Your task to perform on an android device: create a new album in the google photos Image 0: 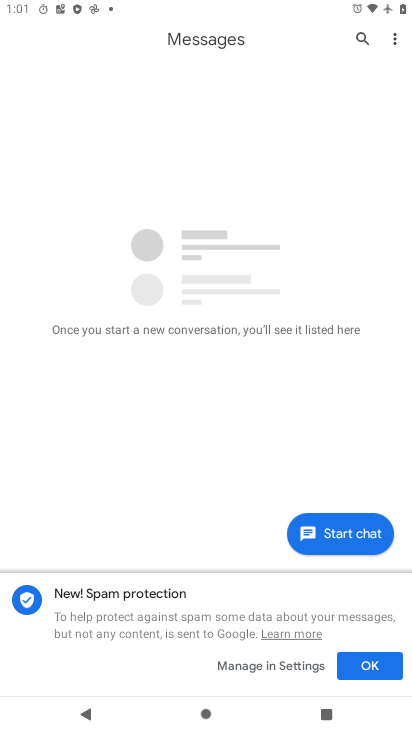
Step 0: press home button
Your task to perform on an android device: create a new album in the google photos Image 1: 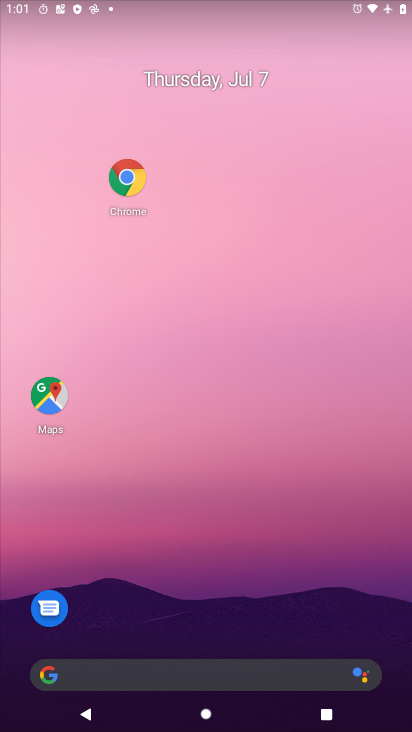
Step 1: drag from (121, 670) to (135, 138)
Your task to perform on an android device: create a new album in the google photos Image 2: 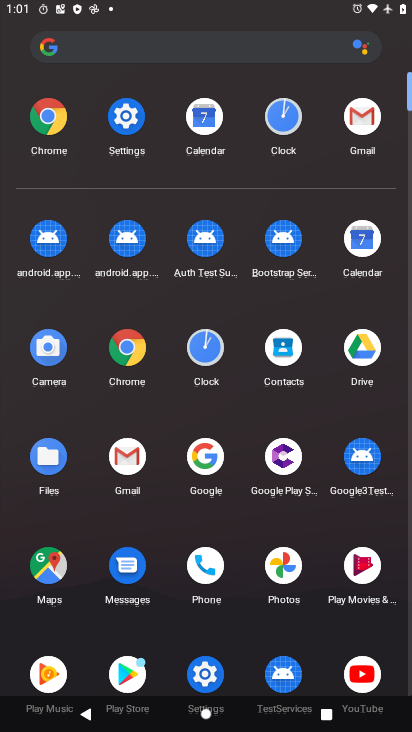
Step 2: click (282, 569)
Your task to perform on an android device: create a new album in the google photos Image 3: 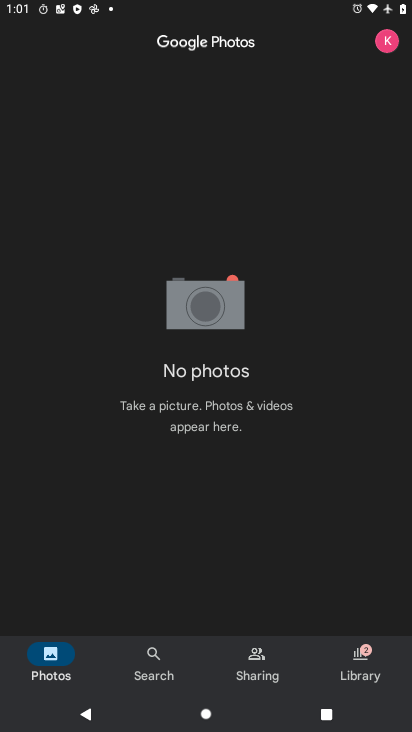
Step 3: click (250, 664)
Your task to perform on an android device: create a new album in the google photos Image 4: 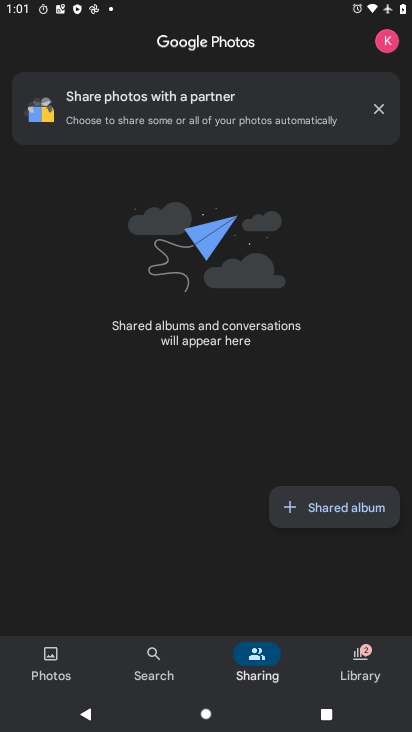
Step 4: click (361, 669)
Your task to perform on an android device: create a new album in the google photos Image 5: 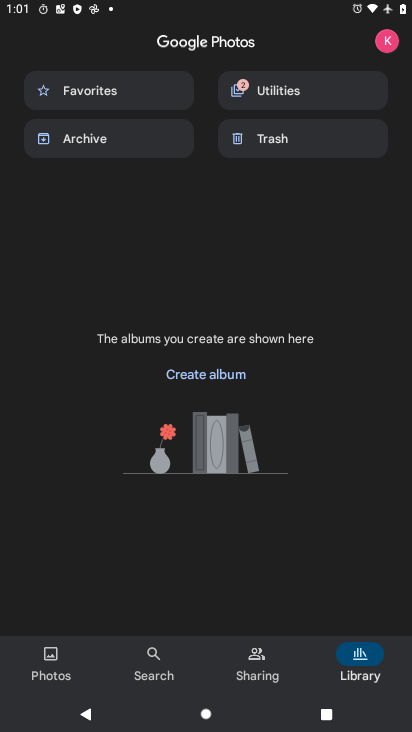
Step 5: click (222, 376)
Your task to perform on an android device: create a new album in the google photos Image 6: 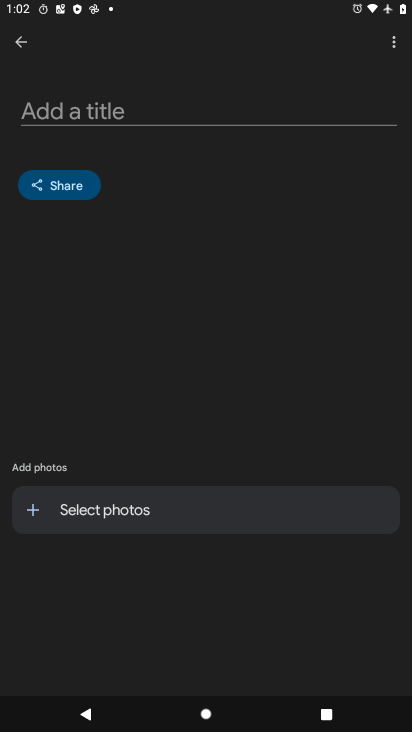
Step 6: click (128, 515)
Your task to perform on an android device: create a new album in the google photos Image 7: 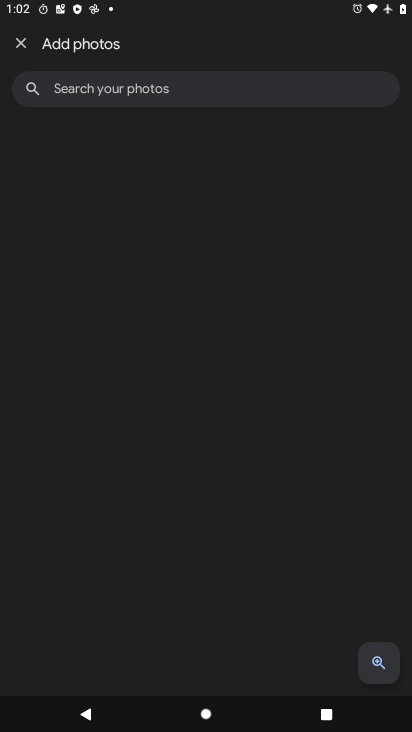
Step 7: task complete